Your task to perform on an android device: toggle pop-ups in chrome Image 0: 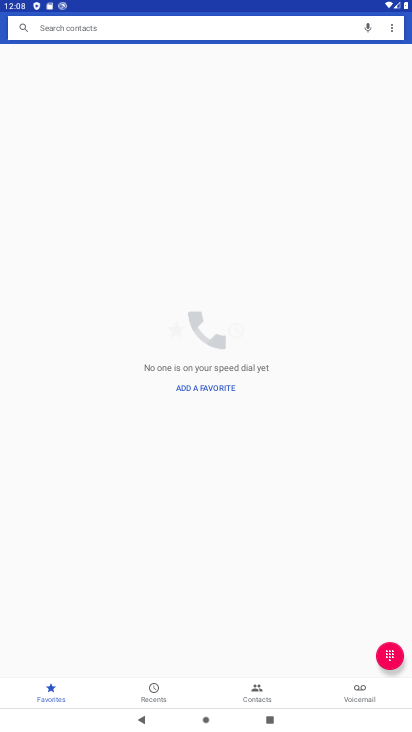
Step 0: press home button
Your task to perform on an android device: toggle pop-ups in chrome Image 1: 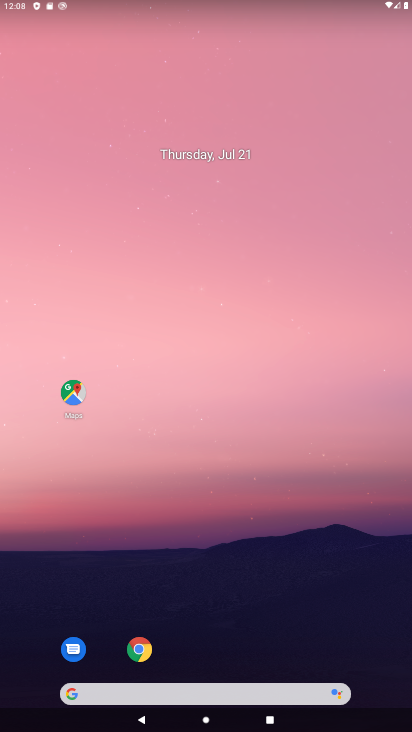
Step 1: click (137, 649)
Your task to perform on an android device: toggle pop-ups in chrome Image 2: 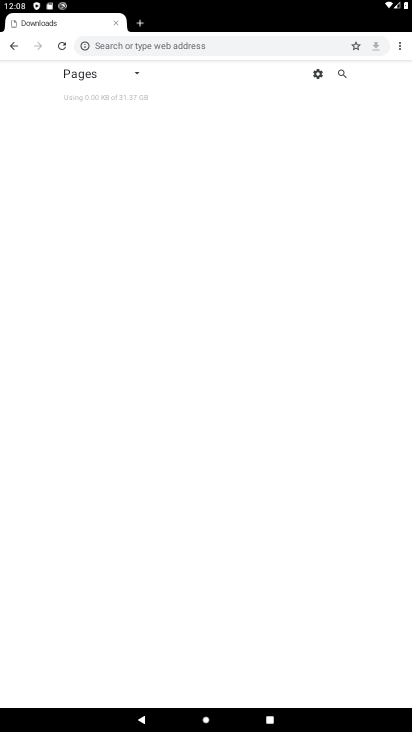
Step 2: click (397, 50)
Your task to perform on an android device: toggle pop-ups in chrome Image 3: 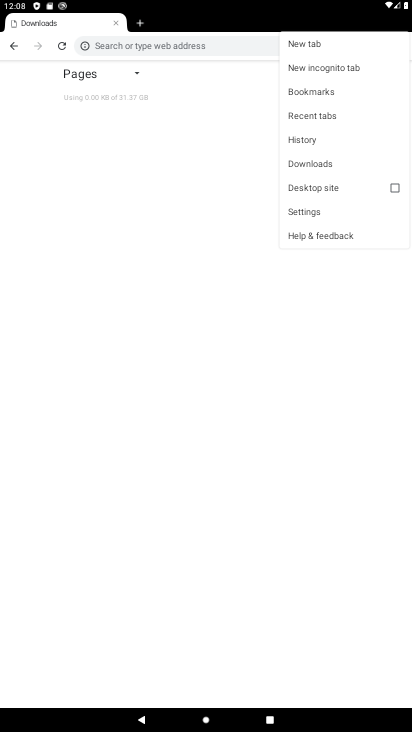
Step 3: click (304, 209)
Your task to perform on an android device: toggle pop-ups in chrome Image 4: 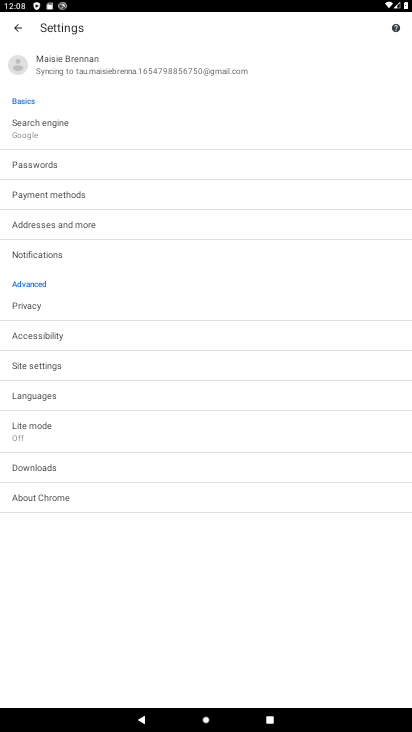
Step 4: click (34, 366)
Your task to perform on an android device: toggle pop-ups in chrome Image 5: 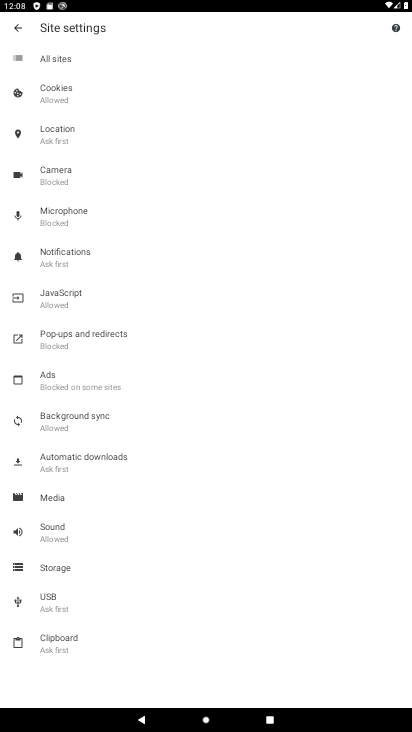
Step 5: click (57, 337)
Your task to perform on an android device: toggle pop-ups in chrome Image 6: 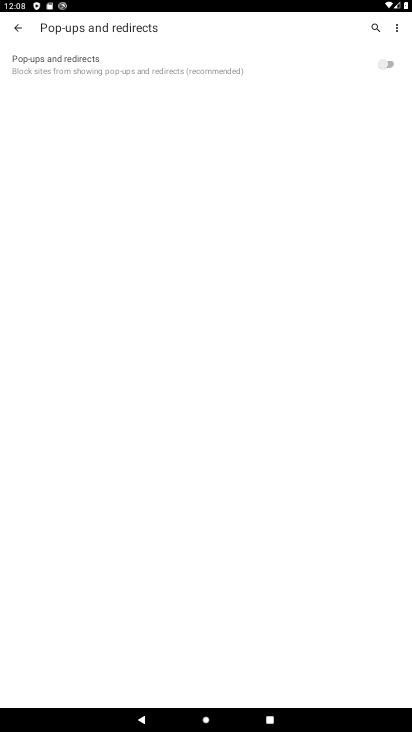
Step 6: click (393, 61)
Your task to perform on an android device: toggle pop-ups in chrome Image 7: 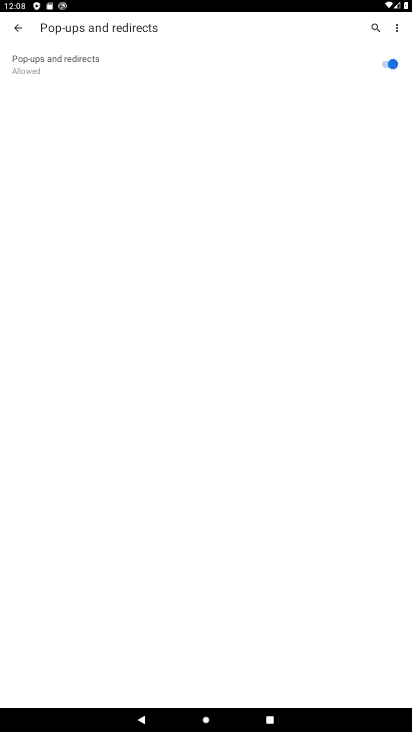
Step 7: task complete